Your task to perform on an android device: Go to battery settings Image 0: 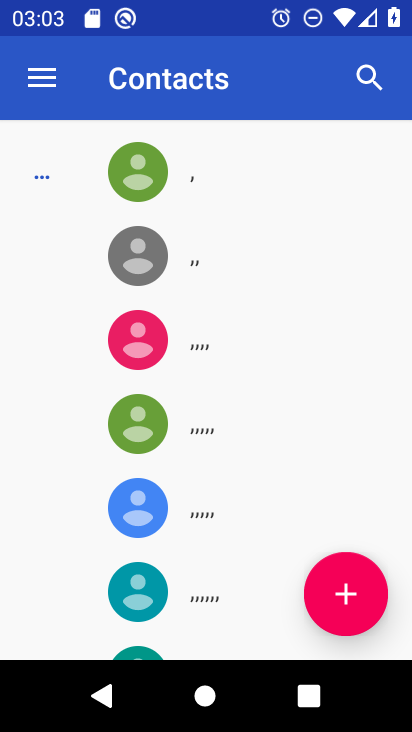
Step 0: press home button
Your task to perform on an android device: Go to battery settings Image 1: 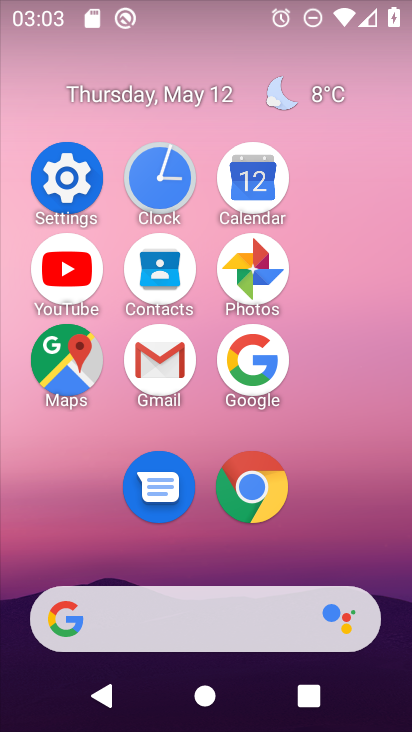
Step 1: click (68, 174)
Your task to perform on an android device: Go to battery settings Image 2: 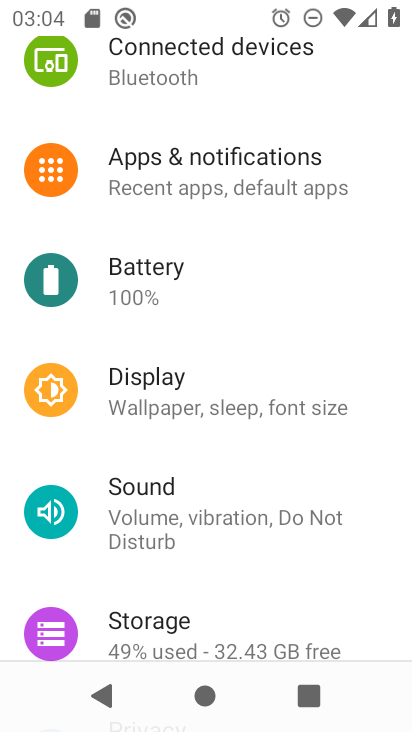
Step 2: click (256, 285)
Your task to perform on an android device: Go to battery settings Image 3: 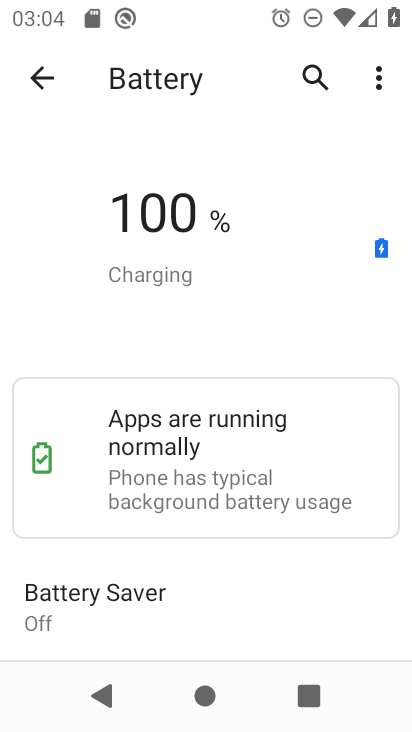
Step 3: task complete